Your task to perform on an android device: open app "Google Play Games" (install if not already installed) Image 0: 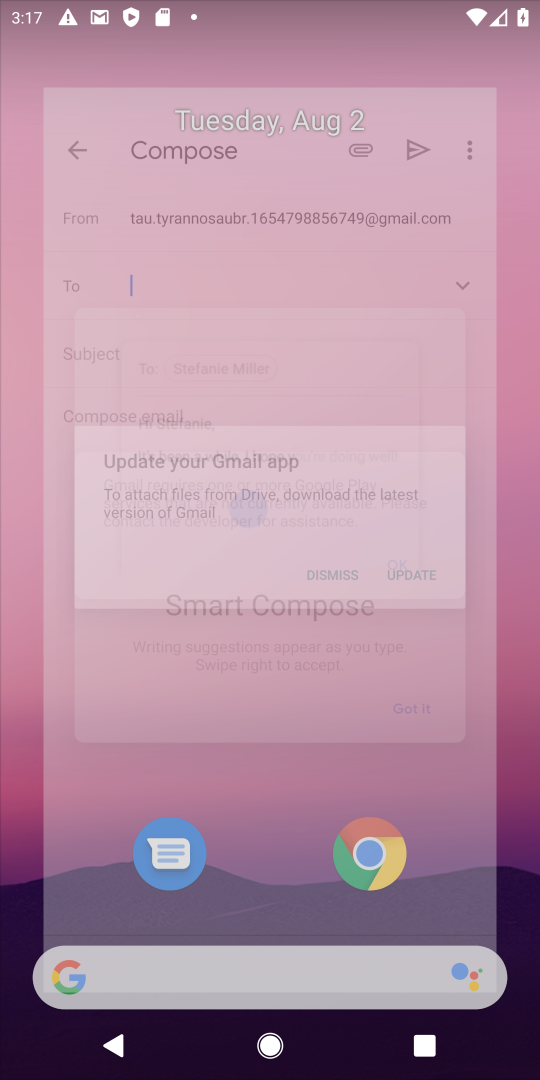
Step 0: drag from (307, 1071) to (274, 78)
Your task to perform on an android device: open app "Google Play Games" (install if not already installed) Image 1: 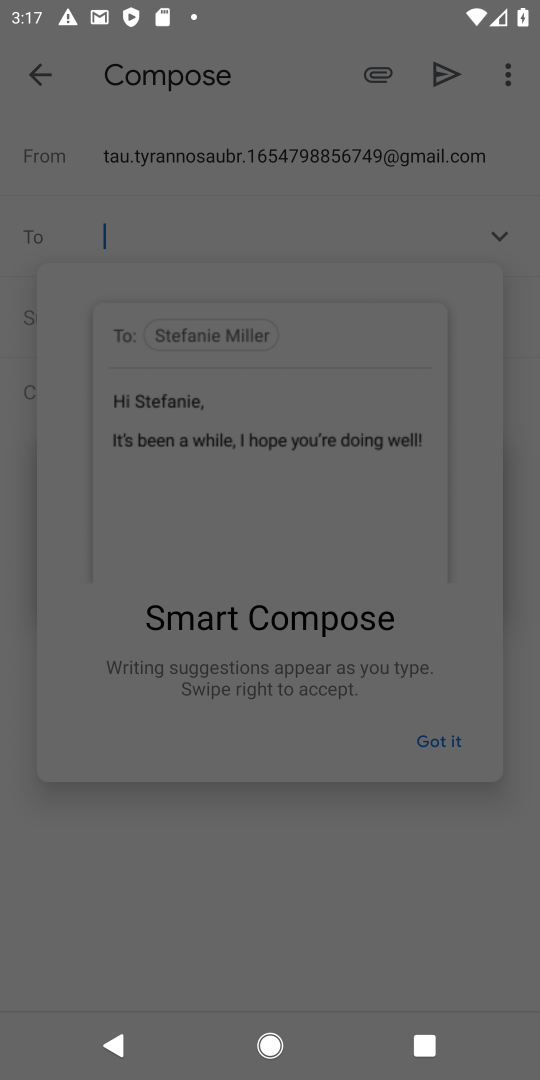
Step 1: press home button
Your task to perform on an android device: open app "Google Play Games" (install if not already installed) Image 2: 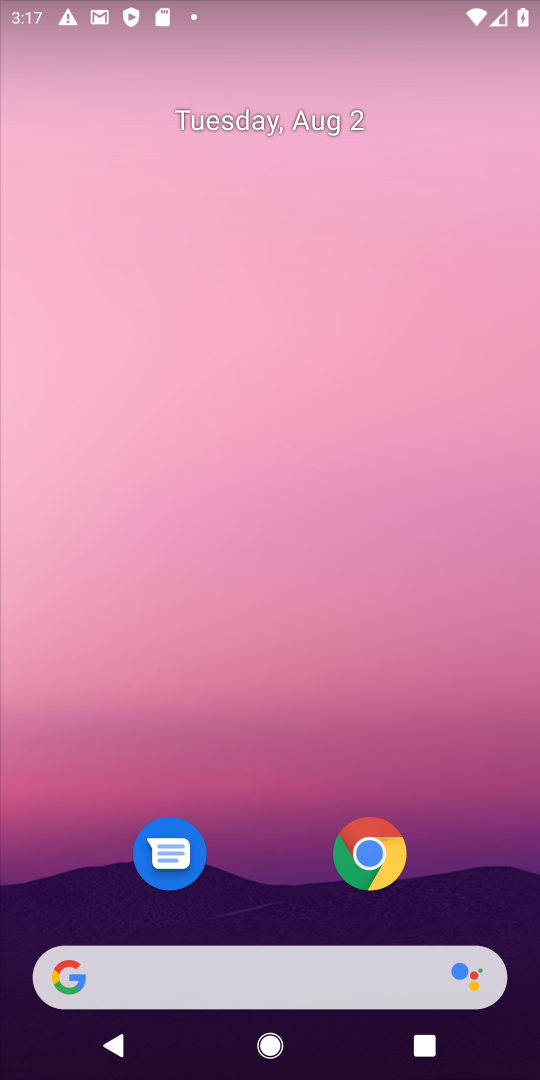
Step 2: drag from (300, 1010) to (333, 142)
Your task to perform on an android device: open app "Google Play Games" (install if not already installed) Image 3: 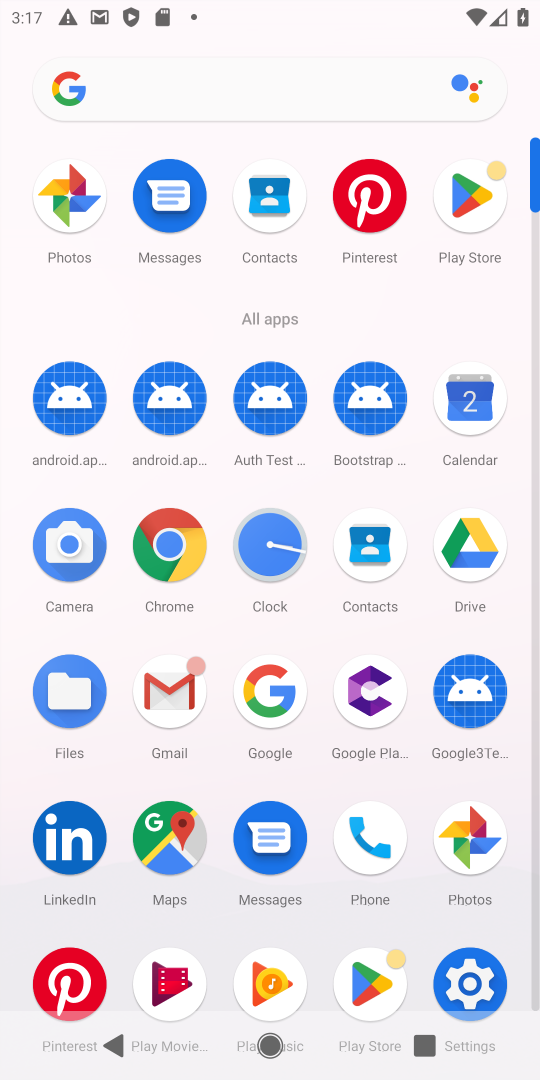
Step 3: click (368, 974)
Your task to perform on an android device: open app "Google Play Games" (install if not already installed) Image 4: 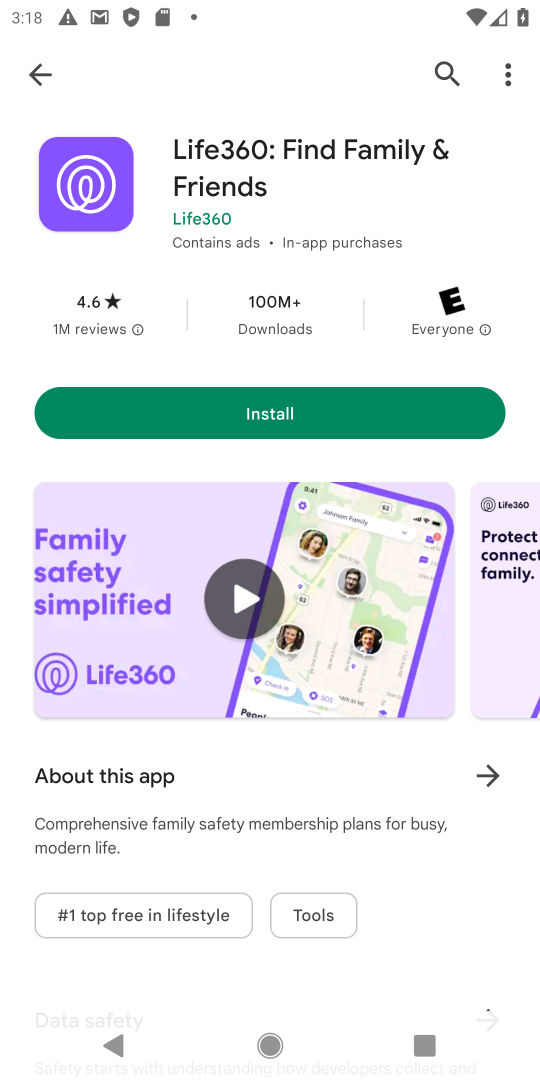
Step 4: click (444, 71)
Your task to perform on an android device: open app "Google Play Games" (install if not already installed) Image 5: 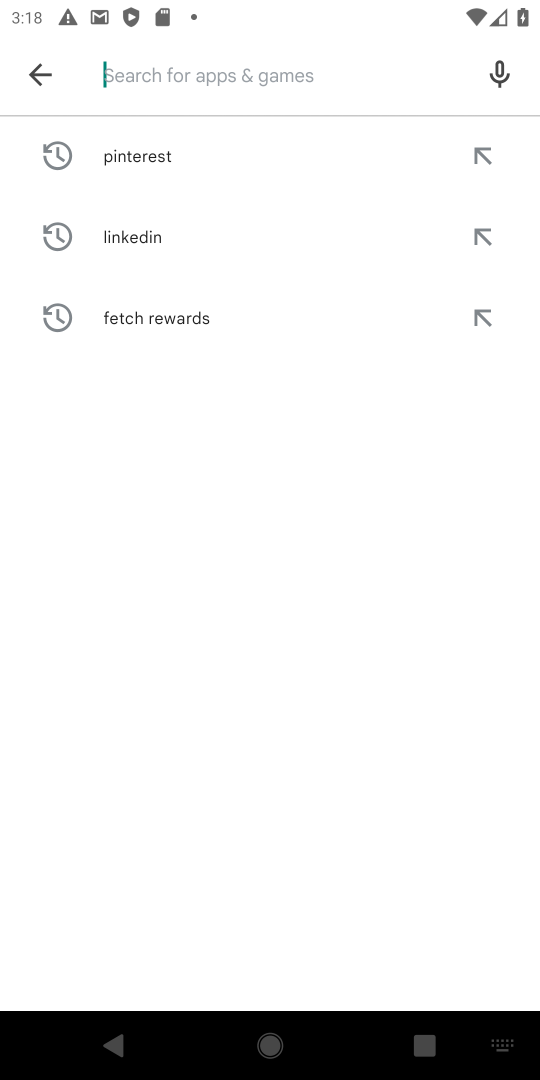
Step 5: type "Google Play Games"
Your task to perform on an android device: open app "Google Play Games" (install if not already installed) Image 6: 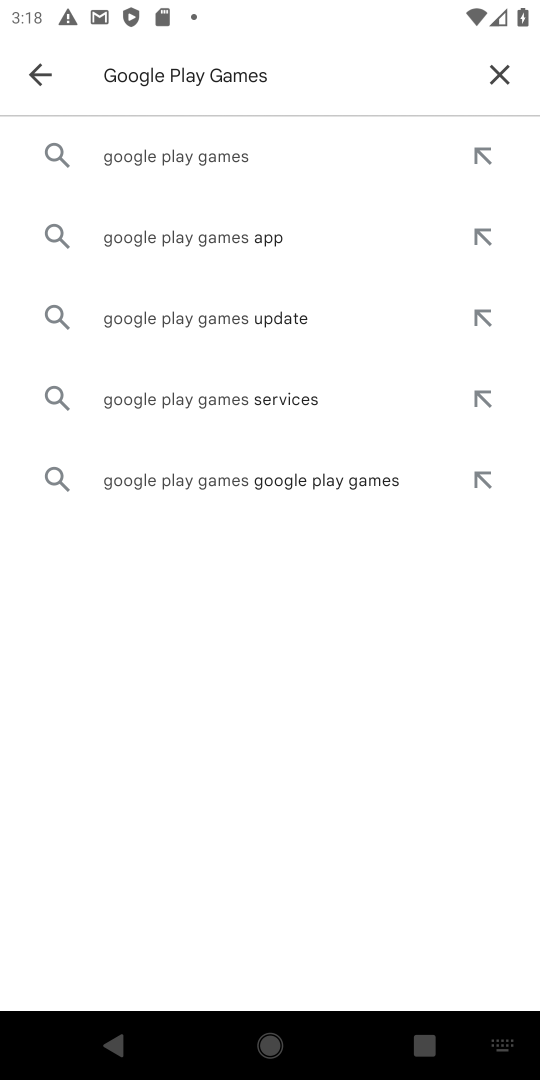
Step 6: click (165, 156)
Your task to perform on an android device: open app "Google Play Games" (install if not already installed) Image 7: 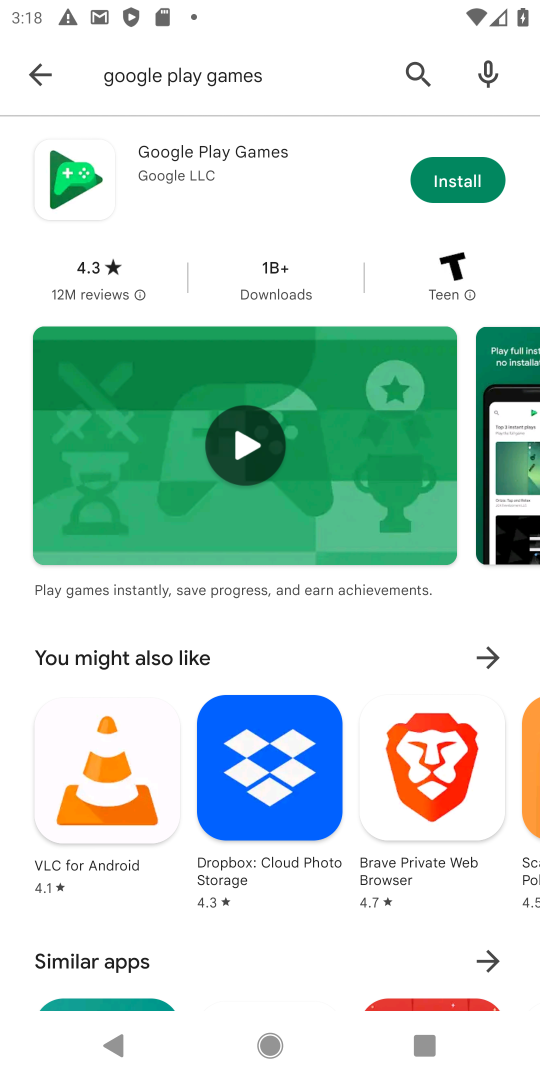
Step 7: click (456, 170)
Your task to perform on an android device: open app "Google Play Games" (install if not already installed) Image 8: 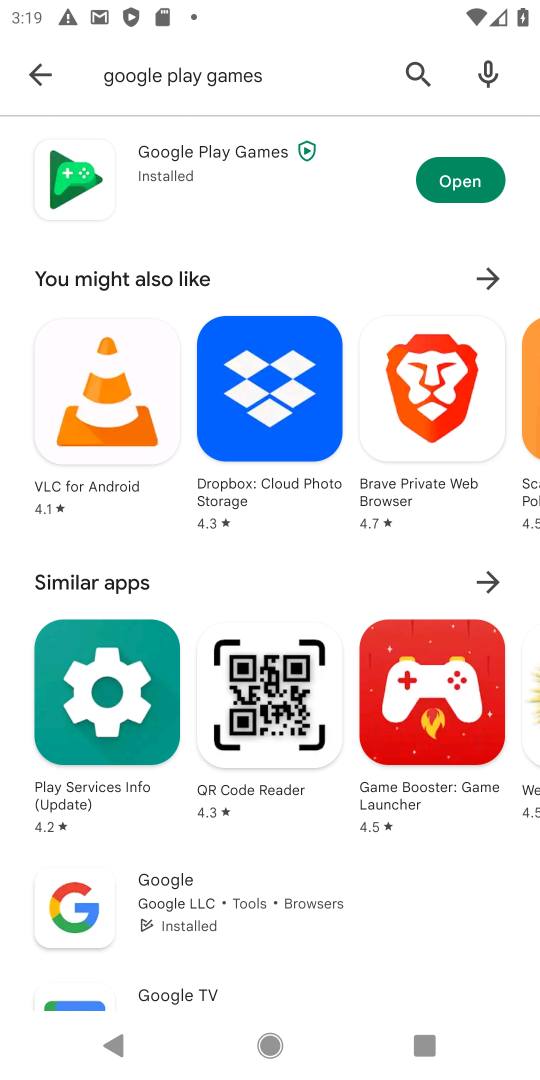
Step 8: click (456, 180)
Your task to perform on an android device: open app "Google Play Games" (install if not already installed) Image 9: 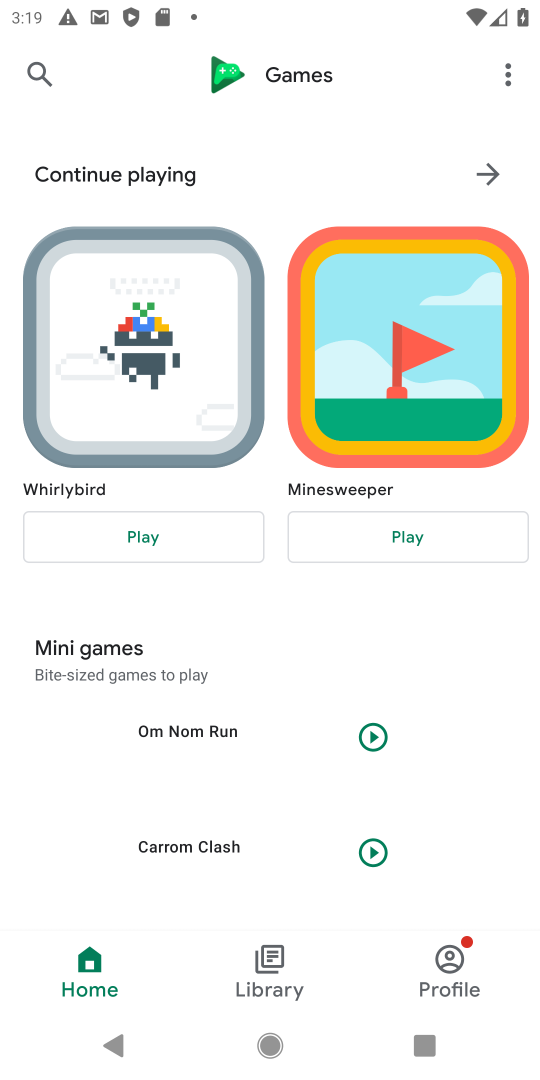
Step 9: task complete